Your task to perform on an android device: Open the contacts app Image 0: 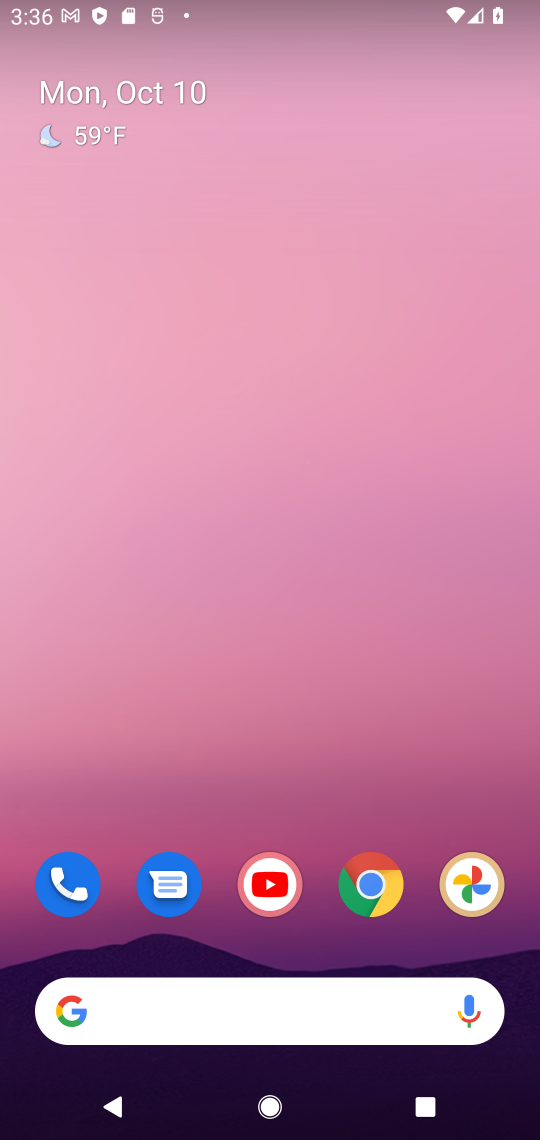
Step 0: drag from (361, 772) to (304, 27)
Your task to perform on an android device: Open the contacts app Image 1: 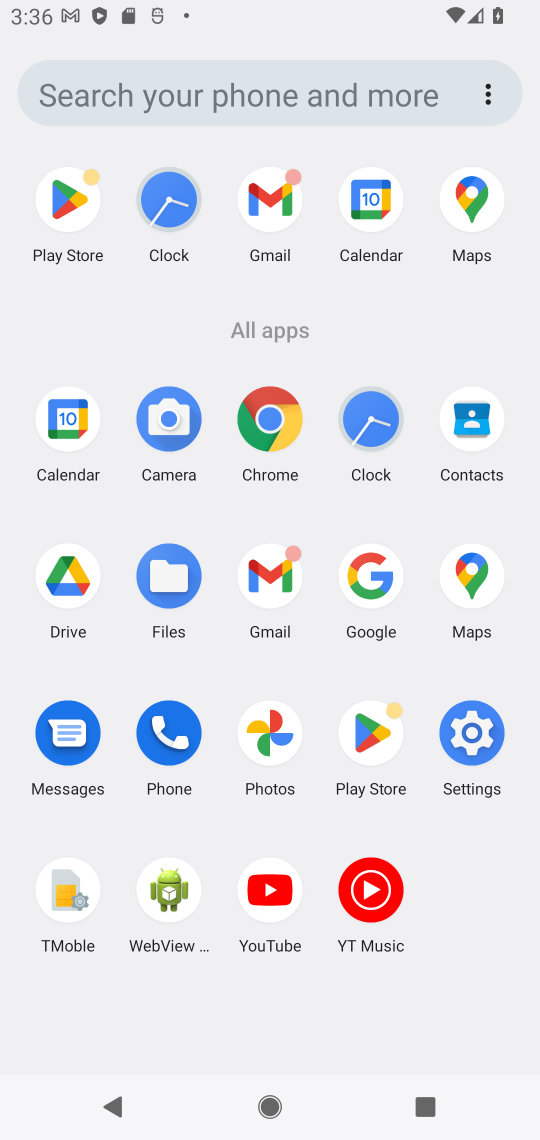
Step 1: click (467, 426)
Your task to perform on an android device: Open the contacts app Image 2: 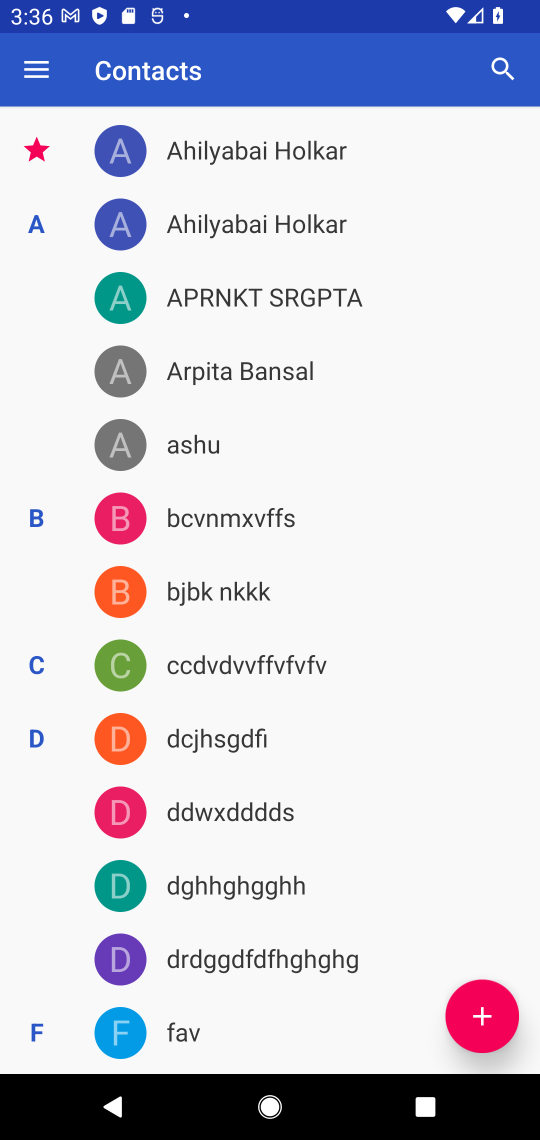
Step 2: task complete